Your task to perform on an android device: turn on improve location accuracy Image 0: 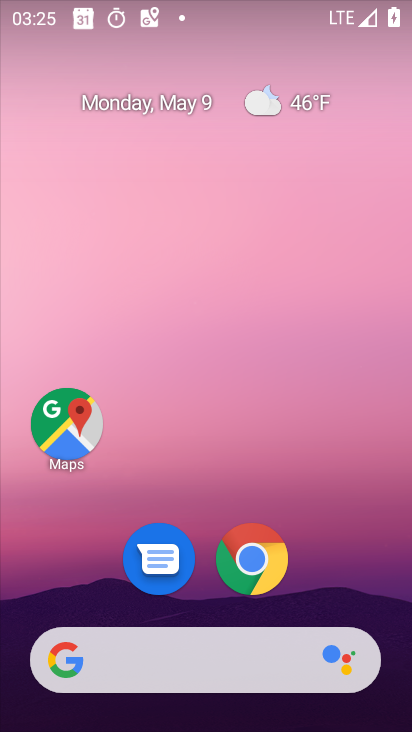
Step 0: drag from (360, 570) to (391, 194)
Your task to perform on an android device: turn on improve location accuracy Image 1: 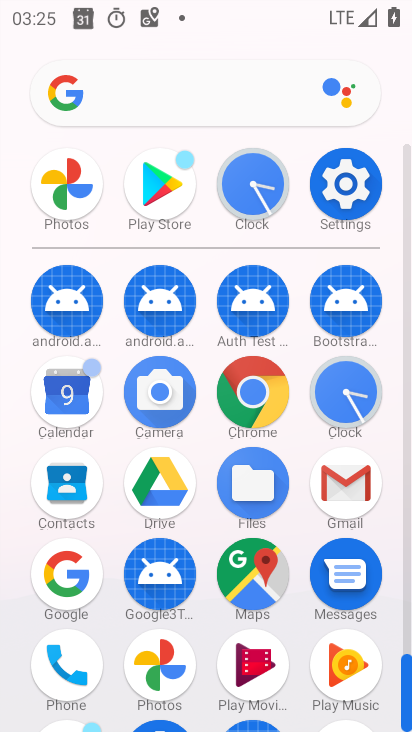
Step 1: click (346, 182)
Your task to perform on an android device: turn on improve location accuracy Image 2: 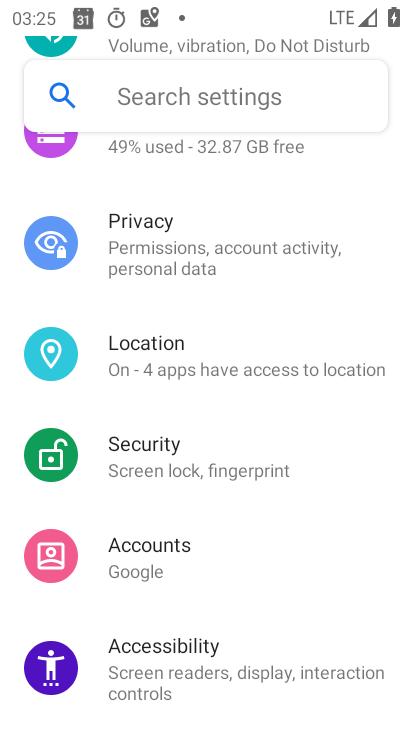
Step 2: click (189, 364)
Your task to perform on an android device: turn on improve location accuracy Image 3: 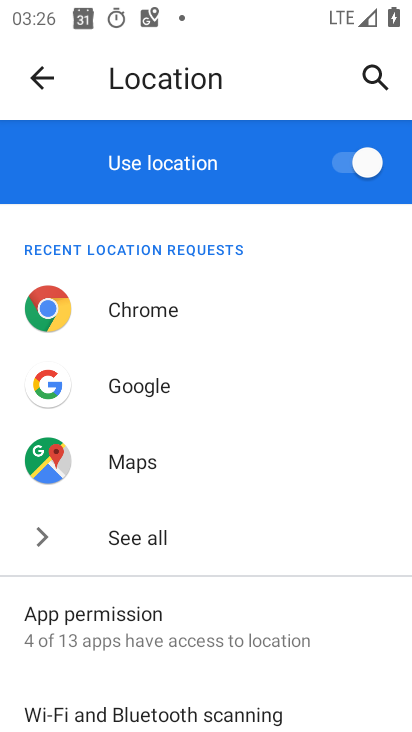
Step 3: drag from (188, 494) to (207, 361)
Your task to perform on an android device: turn on improve location accuracy Image 4: 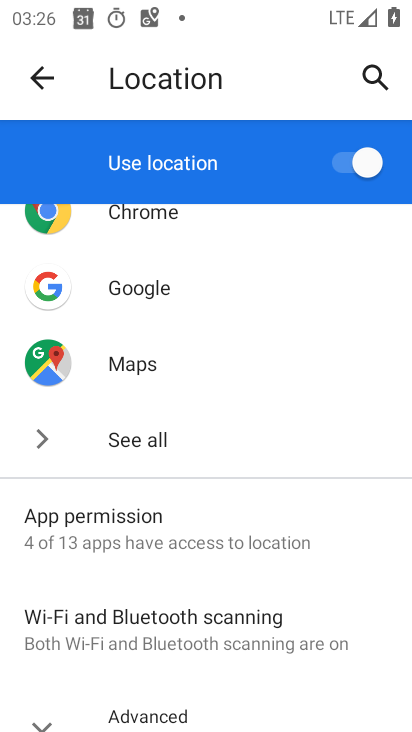
Step 4: drag from (191, 453) to (277, 280)
Your task to perform on an android device: turn on improve location accuracy Image 5: 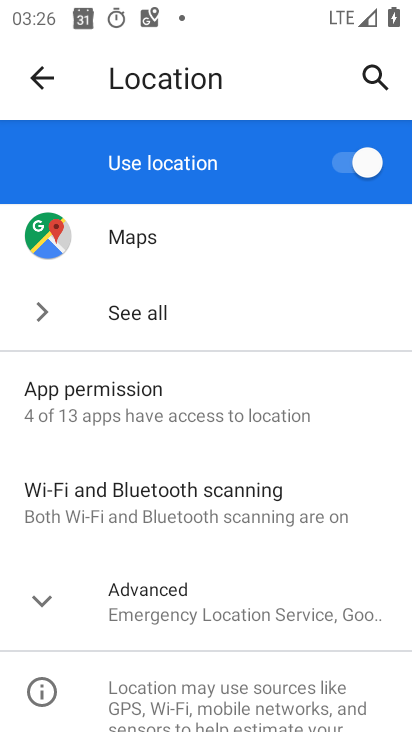
Step 5: drag from (247, 462) to (305, 351)
Your task to perform on an android device: turn on improve location accuracy Image 6: 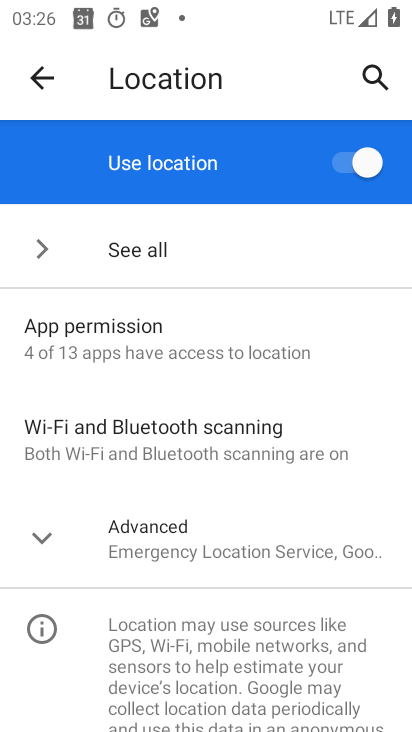
Step 6: click (195, 538)
Your task to perform on an android device: turn on improve location accuracy Image 7: 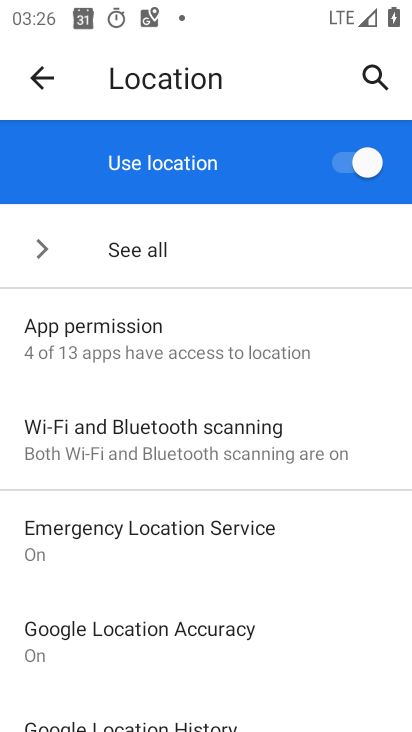
Step 7: drag from (147, 576) to (168, 482)
Your task to perform on an android device: turn on improve location accuracy Image 8: 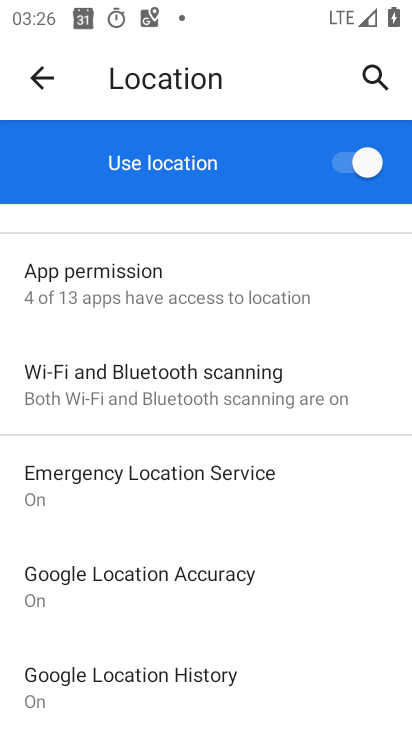
Step 8: click (158, 573)
Your task to perform on an android device: turn on improve location accuracy Image 9: 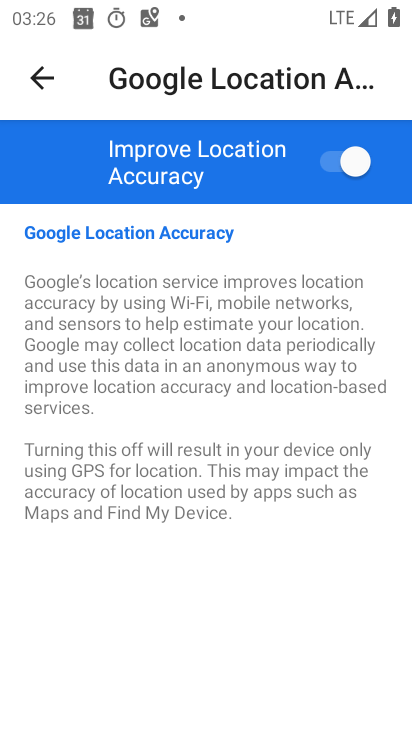
Step 9: task complete